Your task to perform on an android device: turn on notifications settings in the gmail app Image 0: 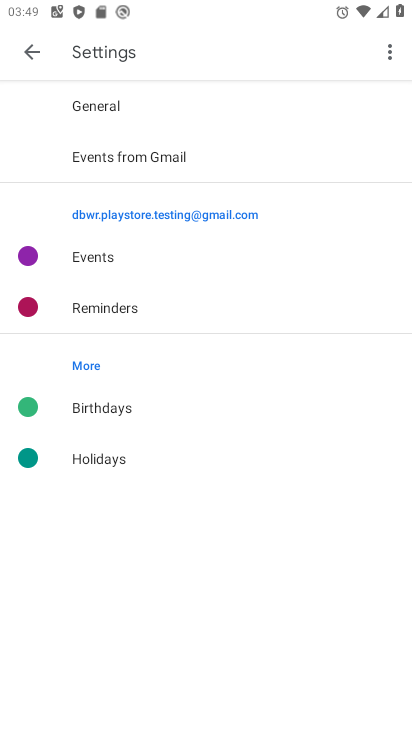
Step 0: press home button
Your task to perform on an android device: turn on notifications settings in the gmail app Image 1: 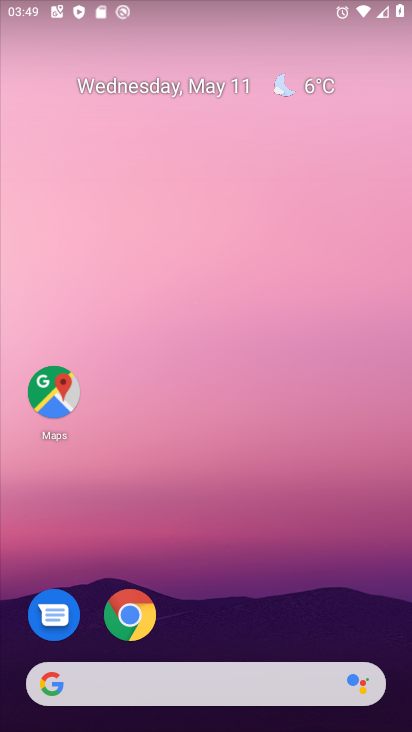
Step 1: drag from (242, 627) to (263, 46)
Your task to perform on an android device: turn on notifications settings in the gmail app Image 2: 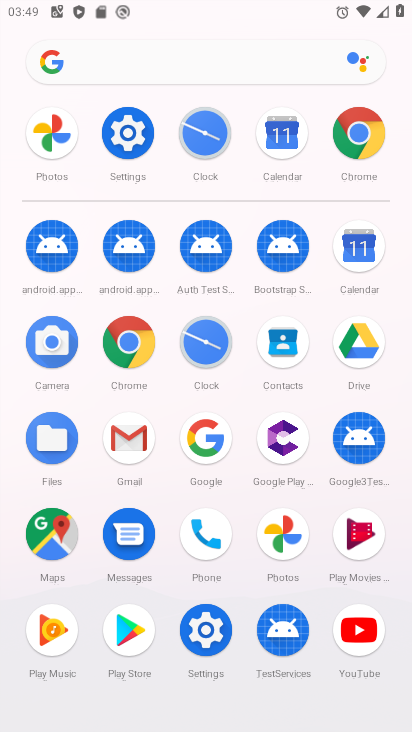
Step 2: click (127, 434)
Your task to perform on an android device: turn on notifications settings in the gmail app Image 3: 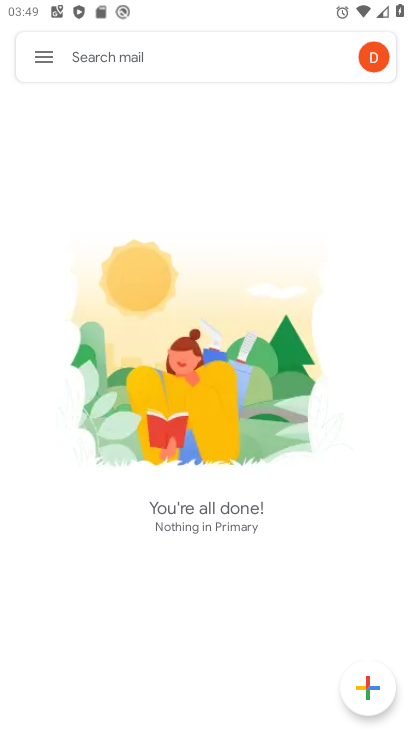
Step 3: click (37, 48)
Your task to perform on an android device: turn on notifications settings in the gmail app Image 4: 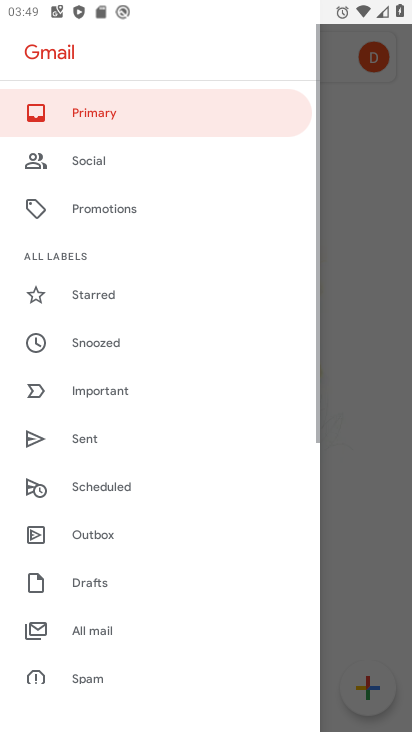
Step 4: drag from (133, 639) to (264, 149)
Your task to perform on an android device: turn on notifications settings in the gmail app Image 5: 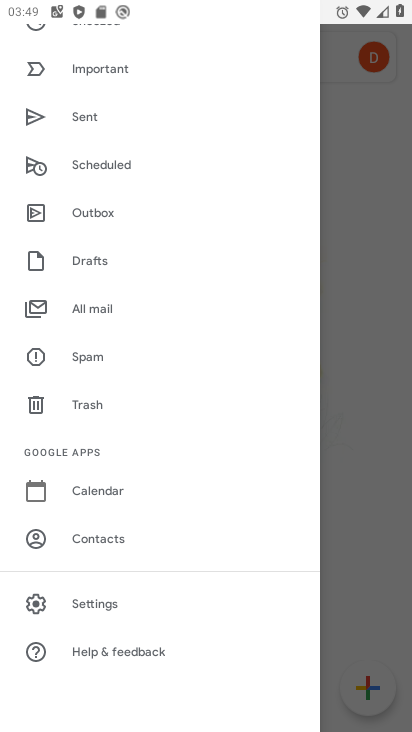
Step 5: click (107, 604)
Your task to perform on an android device: turn on notifications settings in the gmail app Image 6: 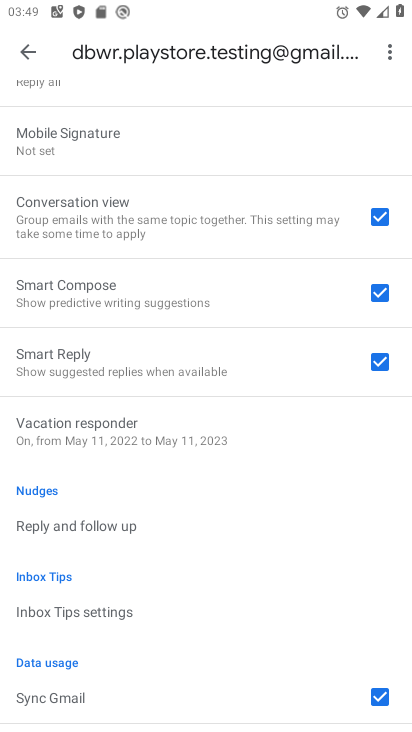
Step 6: drag from (183, 269) to (151, 718)
Your task to perform on an android device: turn on notifications settings in the gmail app Image 7: 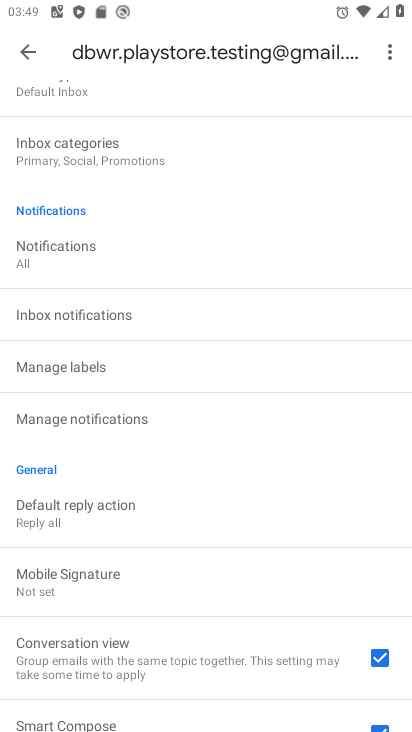
Step 7: click (133, 421)
Your task to perform on an android device: turn on notifications settings in the gmail app Image 8: 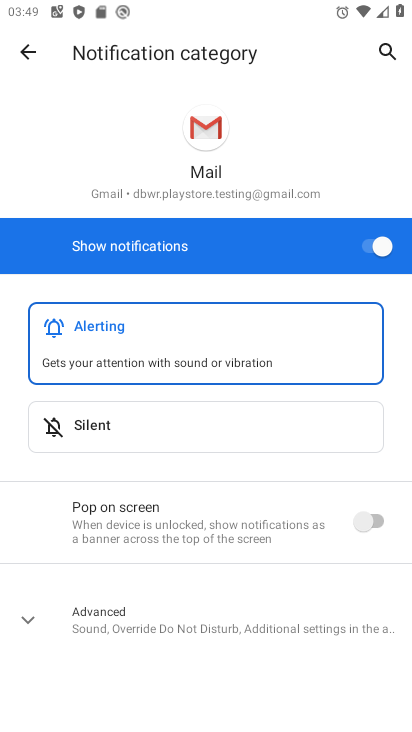
Step 8: task complete